Your task to perform on an android device: toggle sleep mode Image 0: 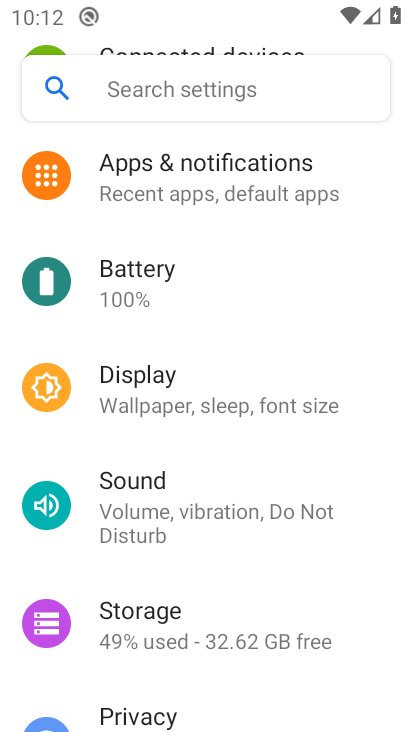
Step 0: click (156, 86)
Your task to perform on an android device: toggle sleep mode Image 1: 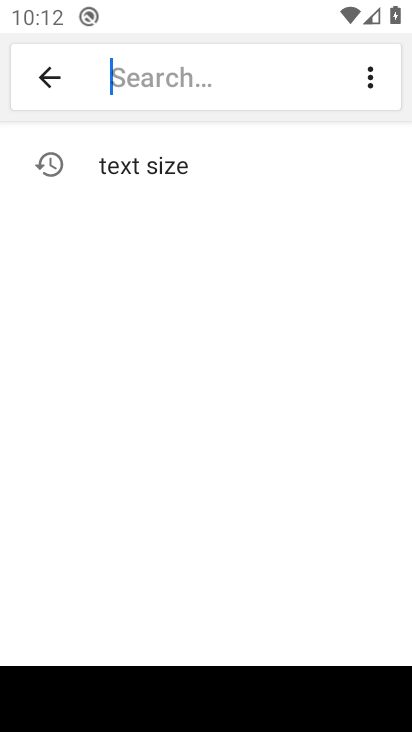
Step 1: type "sleep mode"
Your task to perform on an android device: toggle sleep mode Image 2: 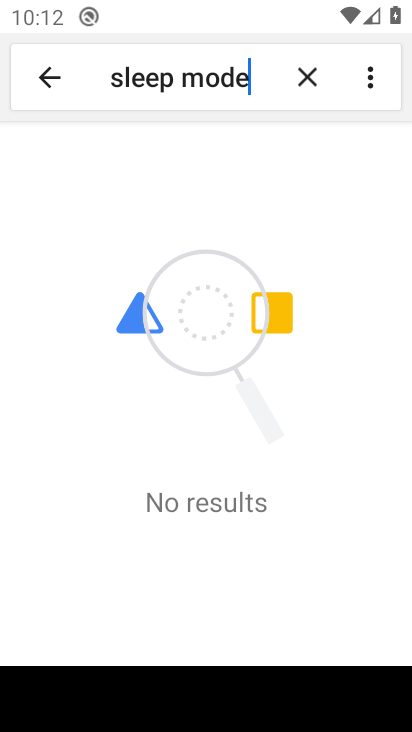
Step 2: task complete